Your task to perform on an android device: turn on translation in the chrome app Image 0: 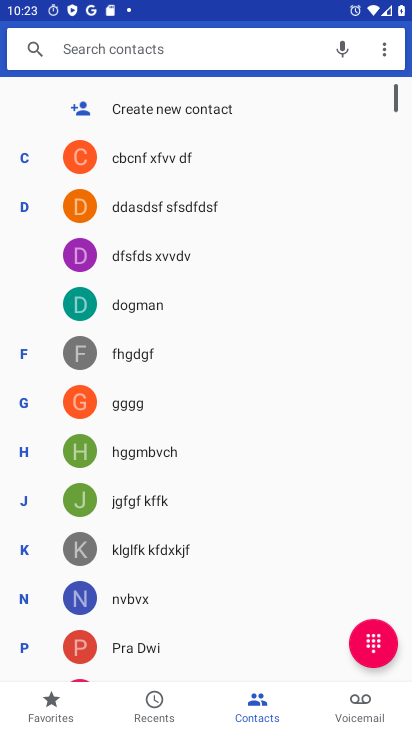
Step 0: press home button
Your task to perform on an android device: turn on translation in the chrome app Image 1: 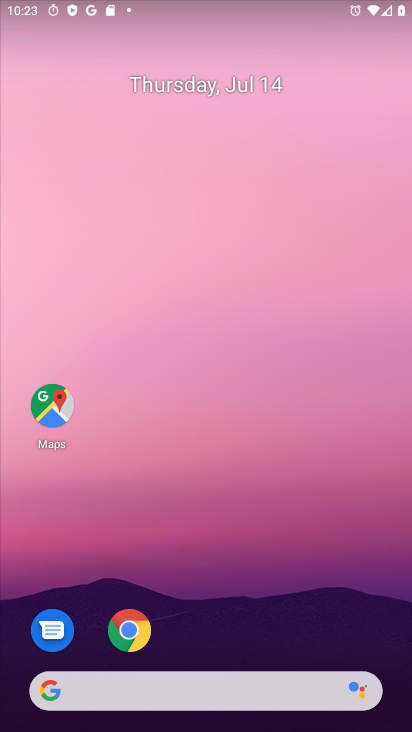
Step 1: click (123, 629)
Your task to perform on an android device: turn on translation in the chrome app Image 2: 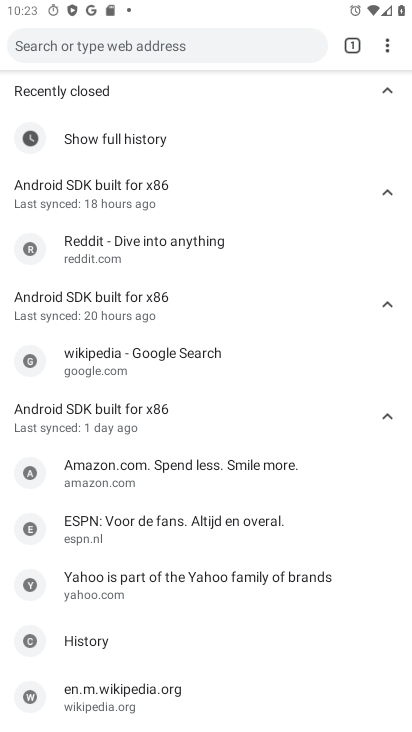
Step 2: click (388, 38)
Your task to perform on an android device: turn on translation in the chrome app Image 3: 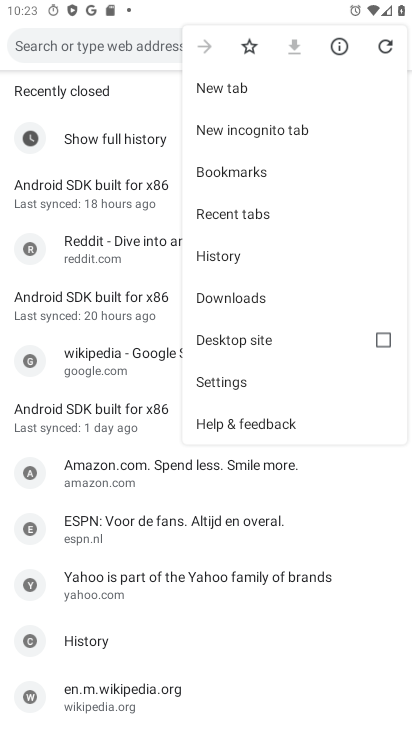
Step 3: click (214, 384)
Your task to perform on an android device: turn on translation in the chrome app Image 4: 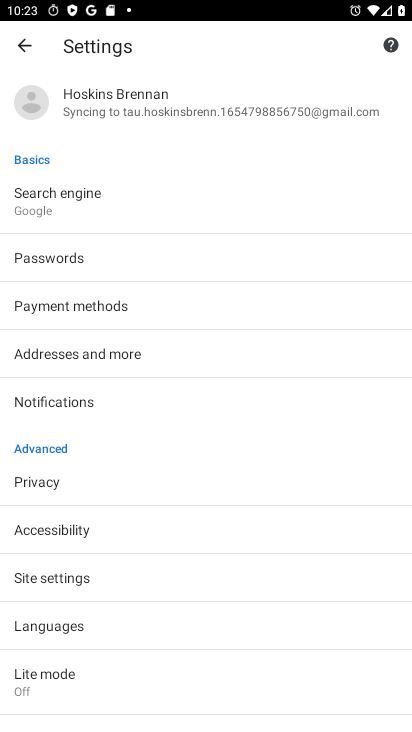
Step 4: click (51, 633)
Your task to perform on an android device: turn on translation in the chrome app Image 5: 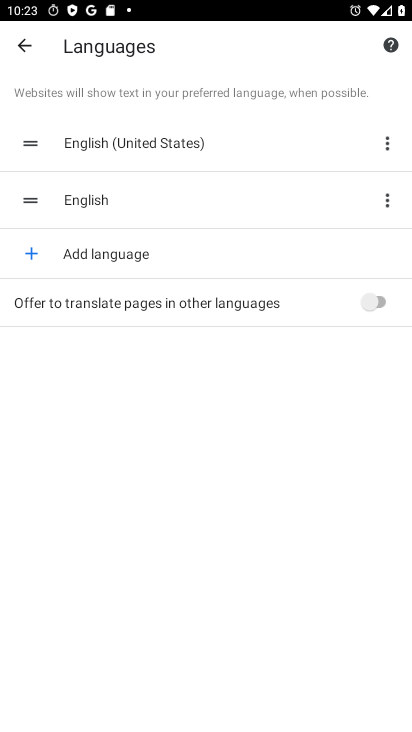
Step 5: click (373, 304)
Your task to perform on an android device: turn on translation in the chrome app Image 6: 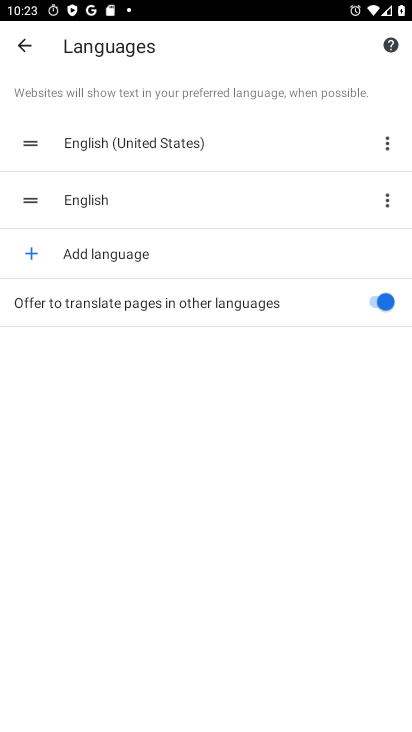
Step 6: task complete